Your task to perform on an android device: open wifi settings Image 0: 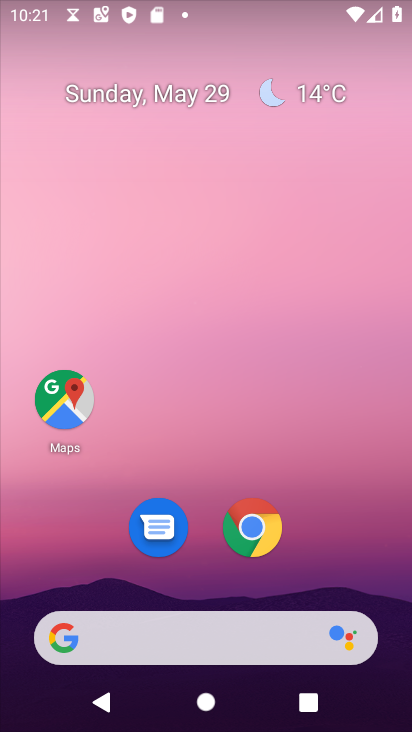
Step 0: drag from (217, 635) to (296, 35)
Your task to perform on an android device: open wifi settings Image 1: 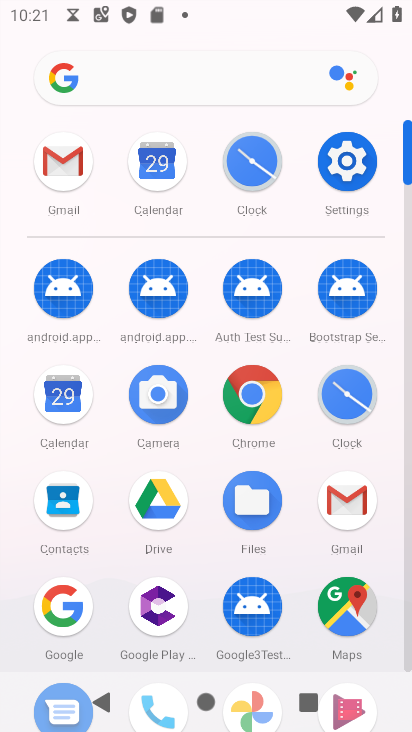
Step 1: click (341, 162)
Your task to perform on an android device: open wifi settings Image 2: 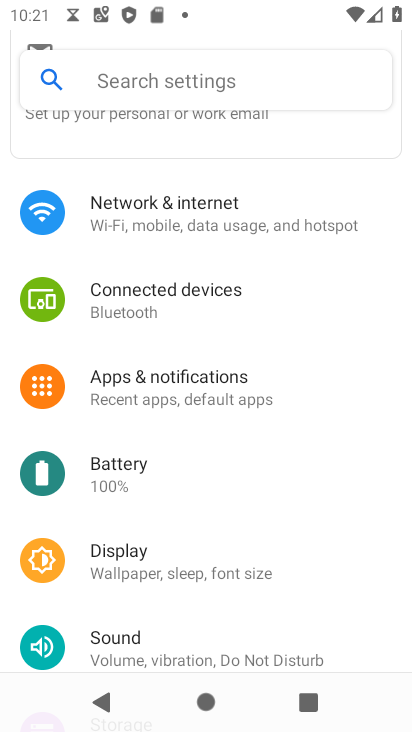
Step 2: click (197, 200)
Your task to perform on an android device: open wifi settings Image 3: 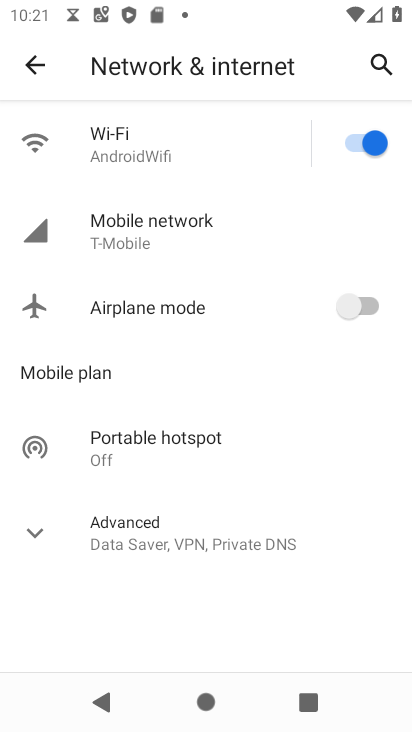
Step 3: click (134, 139)
Your task to perform on an android device: open wifi settings Image 4: 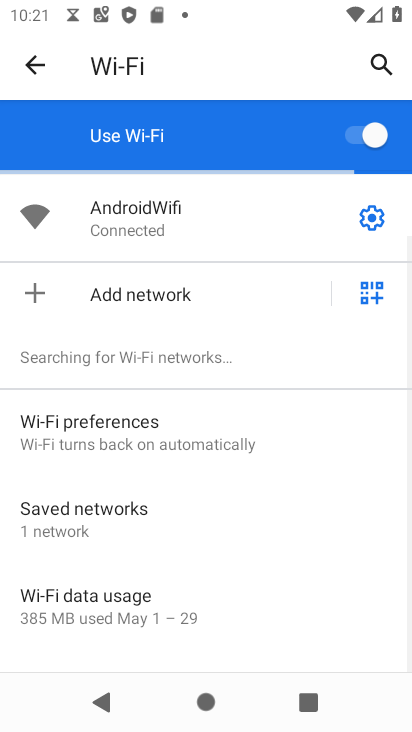
Step 4: task complete